Your task to perform on an android device: Search for seafood restaurants on Google Maps Image 0: 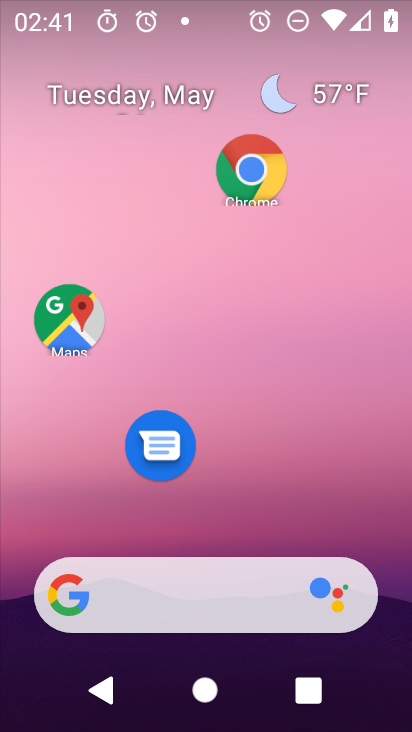
Step 0: drag from (235, 723) to (191, 276)
Your task to perform on an android device: Search for seafood restaurants on Google Maps Image 1: 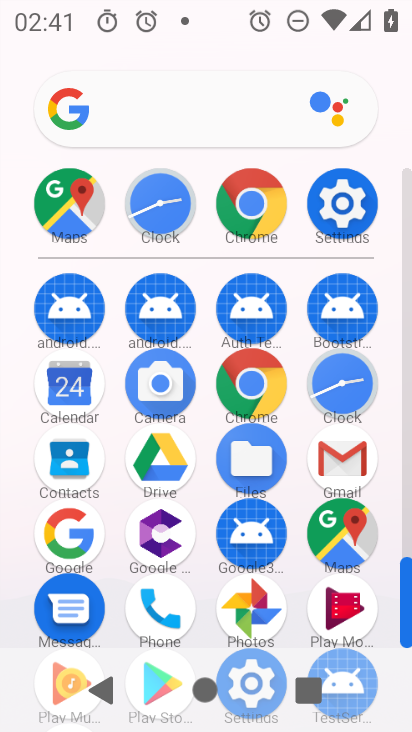
Step 1: click (353, 522)
Your task to perform on an android device: Search for seafood restaurants on Google Maps Image 2: 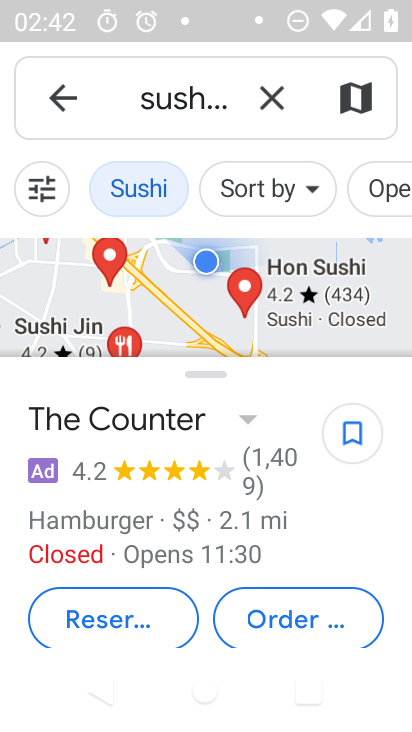
Step 2: click (271, 88)
Your task to perform on an android device: Search for seafood restaurants on Google Maps Image 3: 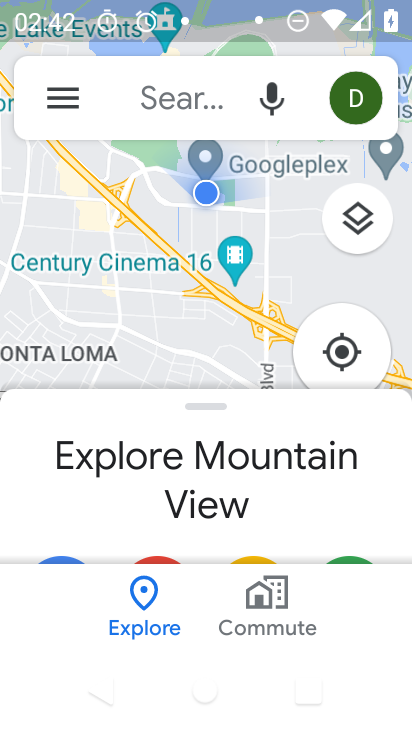
Step 3: click (161, 99)
Your task to perform on an android device: Search for seafood restaurants on Google Maps Image 4: 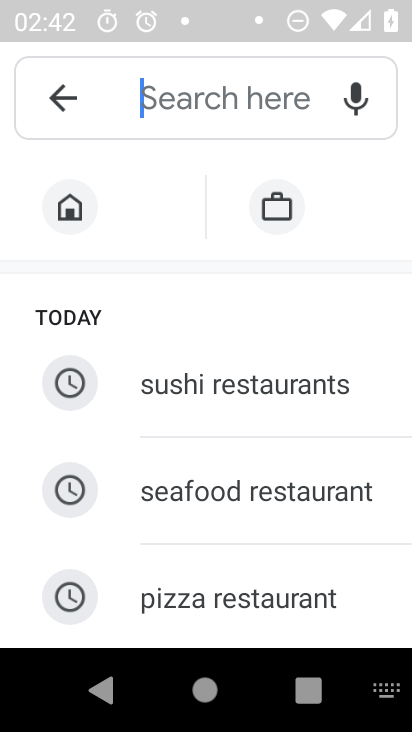
Step 4: type "seafood restaurants"
Your task to perform on an android device: Search for seafood restaurants on Google Maps Image 5: 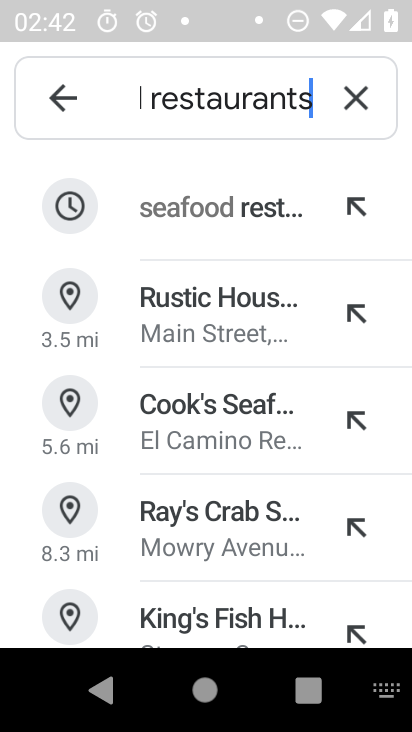
Step 5: click (225, 209)
Your task to perform on an android device: Search for seafood restaurants on Google Maps Image 6: 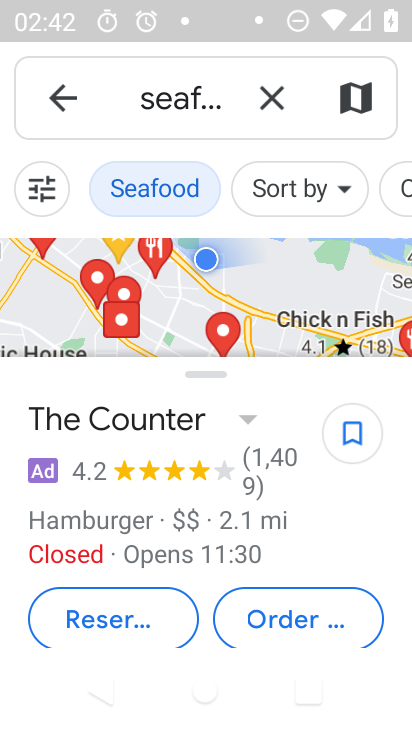
Step 6: task complete